Your task to perform on an android device: open a bookmark in the chrome app Image 0: 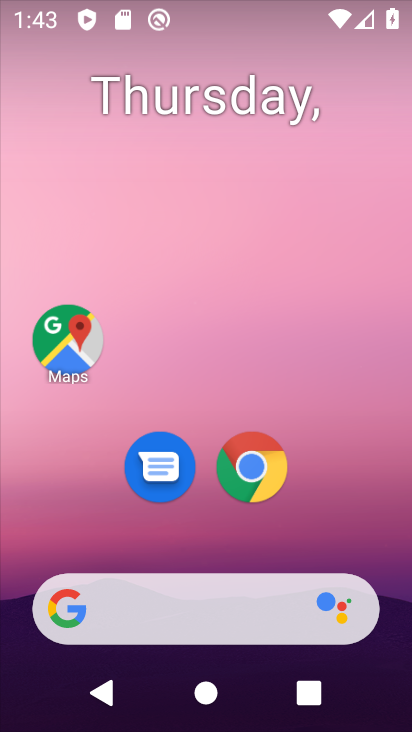
Step 0: press home button
Your task to perform on an android device: open a bookmark in the chrome app Image 1: 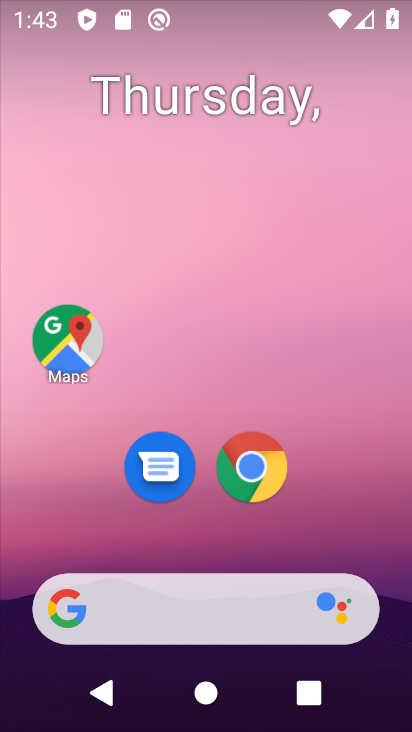
Step 1: drag from (326, 524) to (344, 110)
Your task to perform on an android device: open a bookmark in the chrome app Image 2: 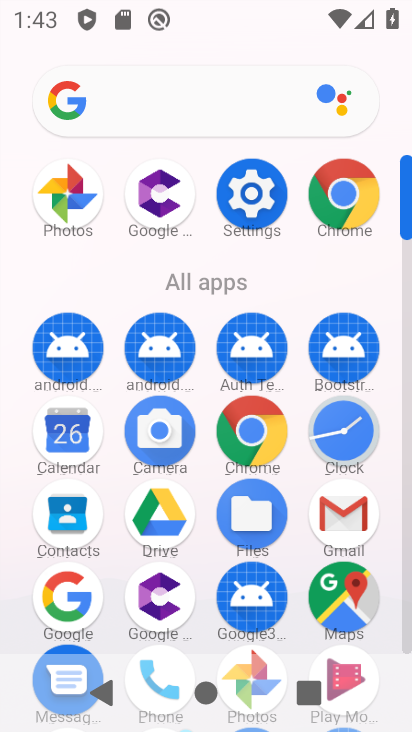
Step 2: click (246, 436)
Your task to perform on an android device: open a bookmark in the chrome app Image 3: 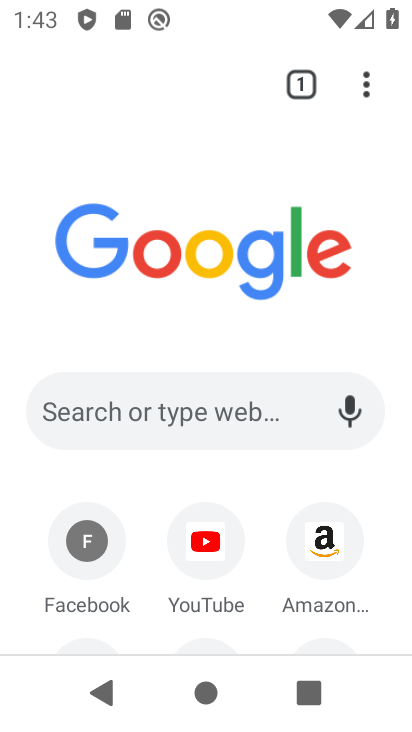
Step 3: task complete